Your task to perform on an android device: star an email in the gmail app Image 0: 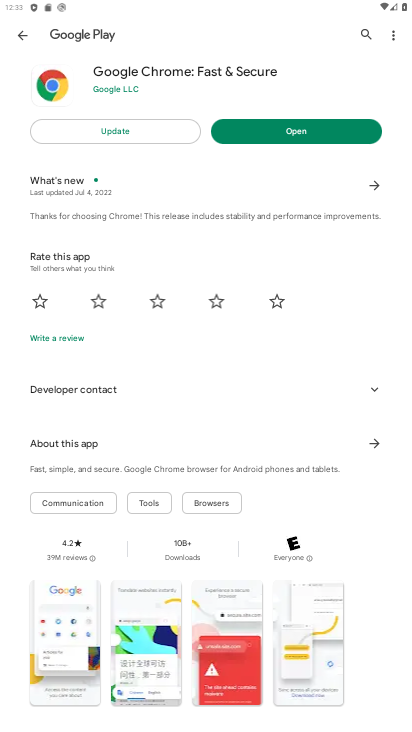
Step 0: press home button
Your task to perform on an android device: star an email in the gmail app Image 1: 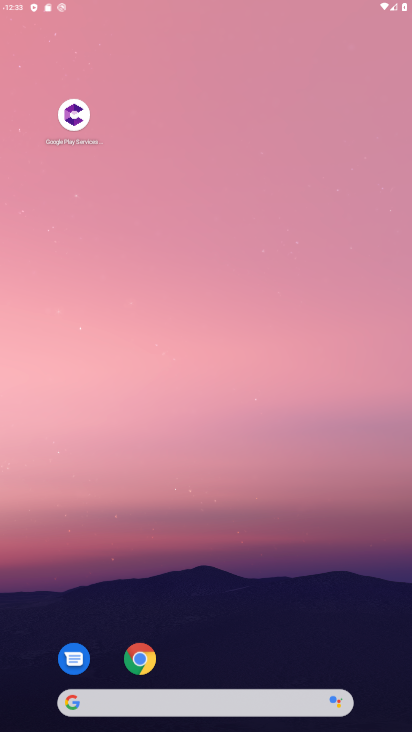
Step 1: drag from (398, 701) to (206, 36)
Your task to perform on an android device: star an email in the gmail app Image 2: 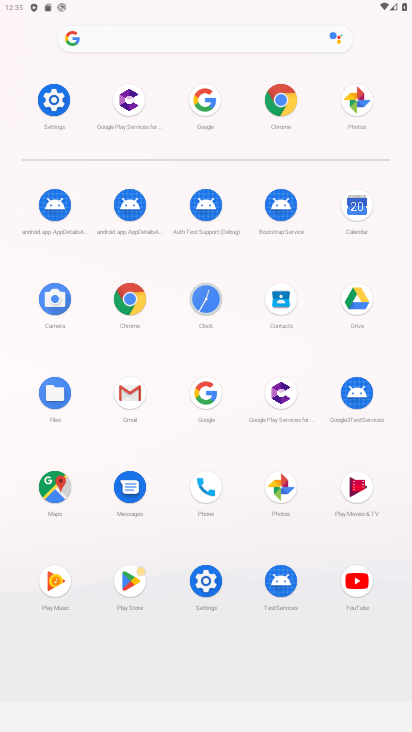
Step 2: click (128, 407)
Your task to perform on an android device: star an email in the gmail app Image 3: 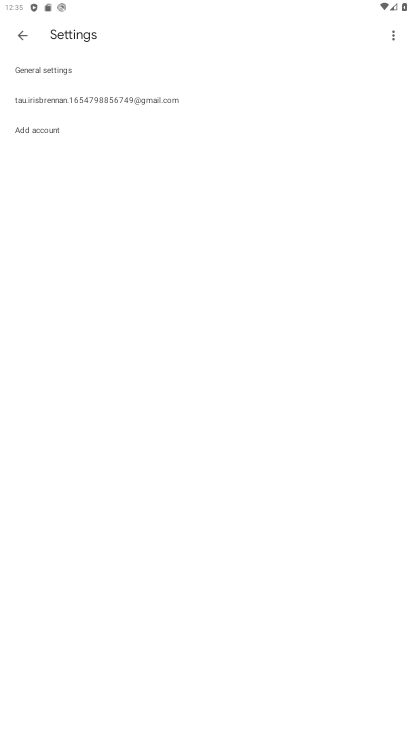
Step 3: press back button
Your task to perform on an android device: star an email in the gmail app Image 4: 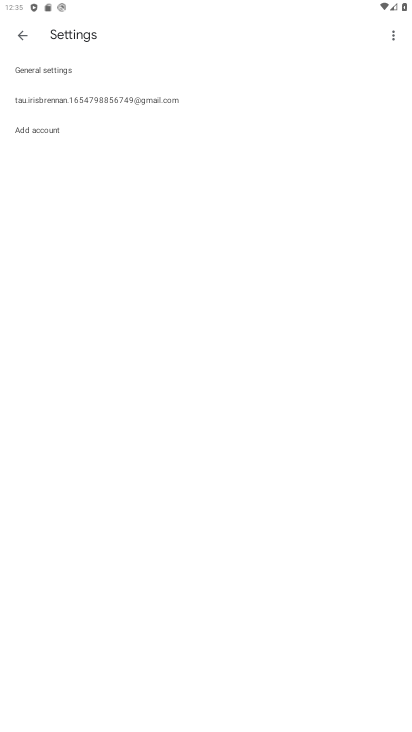
Step 4: press back button
Your task to perform on an android device: star an email in the gmail app Image 5: 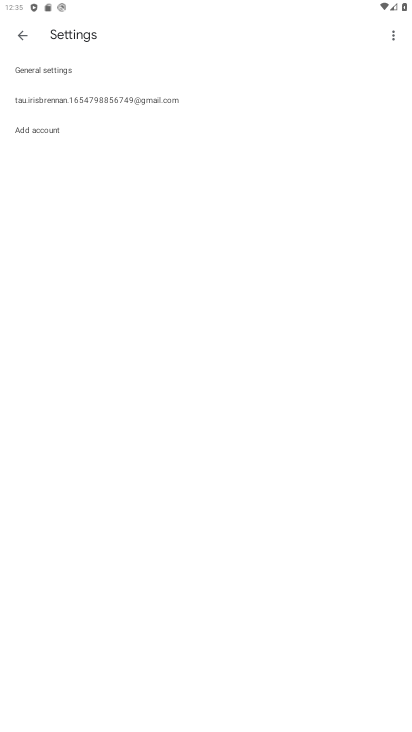
Step 5: press back button
Your task to perform on an android device: star an email in the gmail app Image 6: 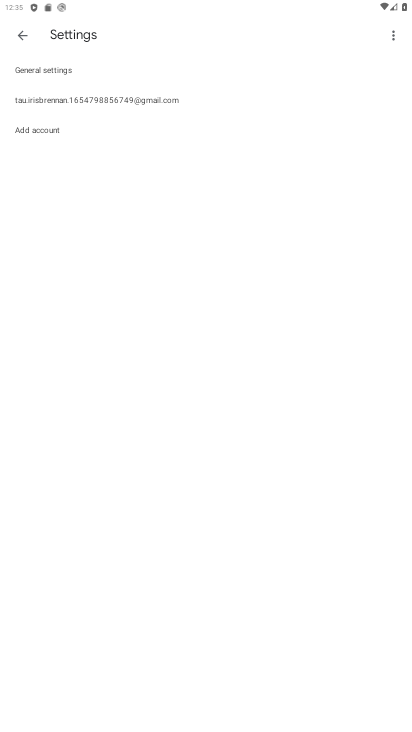
Step 6: press back button
Your task to perform on an android device: star an email in the gmail app Image 7: 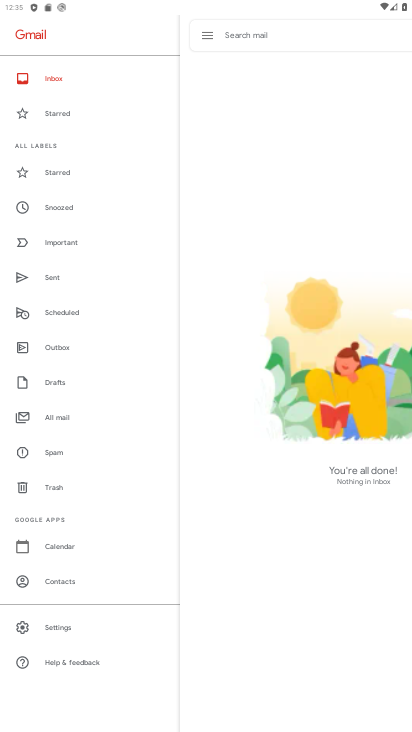
Step 7: click (48, 417)
Your task to perform on an android device: star an email in the gmail app Image 8: 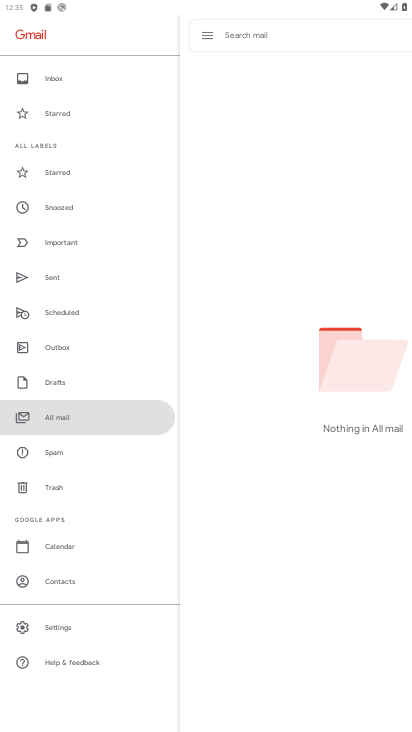
Step 8: task complete